Your task to perform on an android device: Go to Maps Image 0: 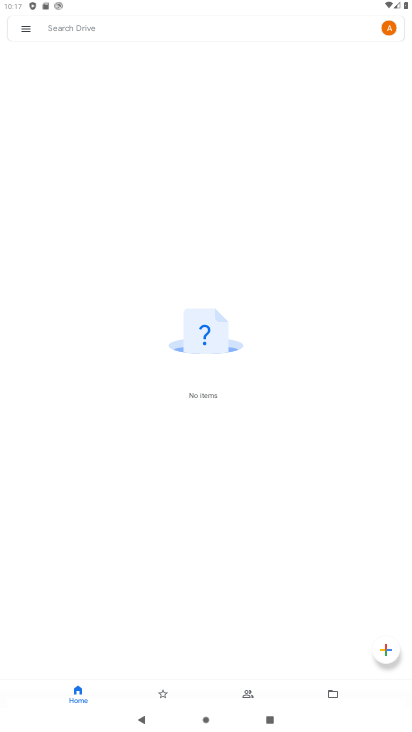
Step 0: press home button
Your task to perform on an android device: Go to Maps Image 1: 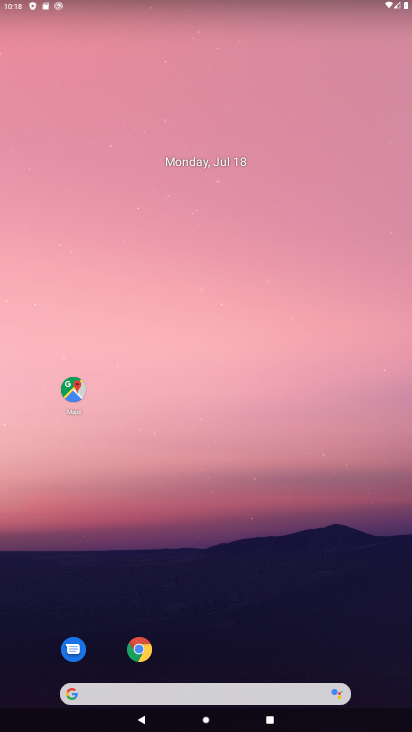
Step 1: click (67, 396)
Your task to perform on an android device: Go to Maps Image 2: 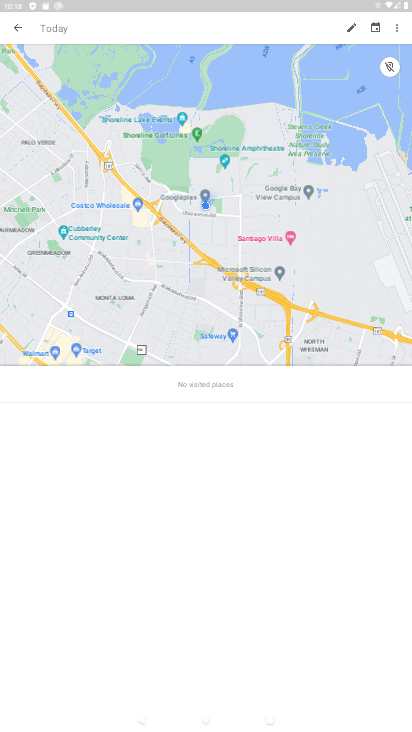
Step 2: click (18, 31)
Your task to perform on an android device: Go to Maps Image 3: 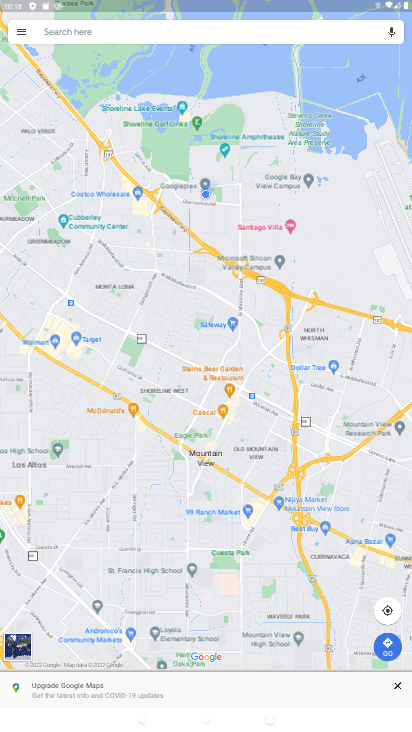
Step 3: task complete